Your task to perform on an android device: Go to notification settings Image 0: 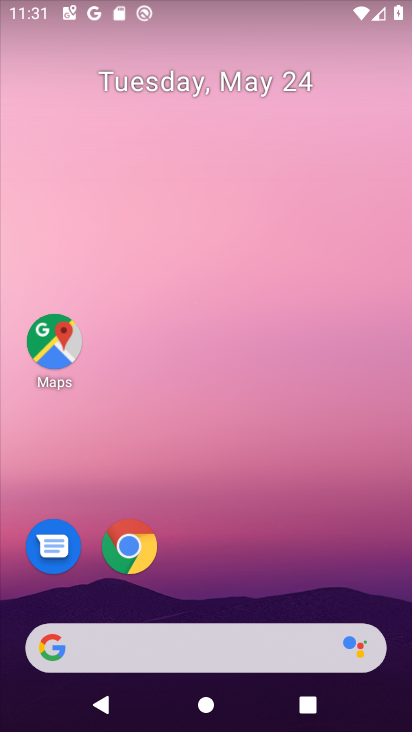
Step 0: drag from (195, 604) to (272, 214)
Your task to perform on an android device: Go to notification settings Image 1: 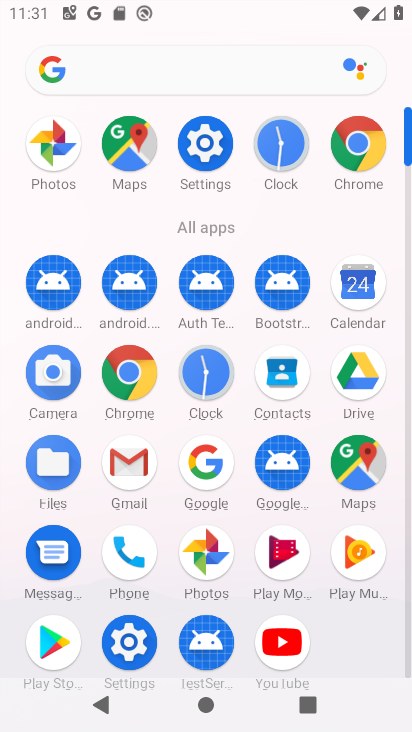
Step 1: click (210, 163)
Your task to perform on an android device: Go to notification settings Image 2: 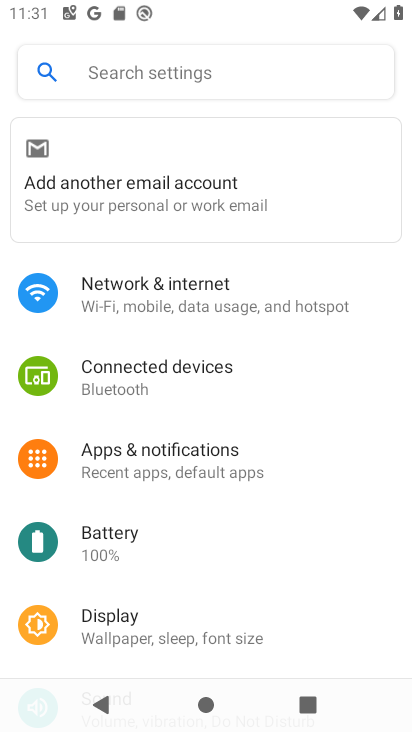
Step 2: click (185, 478)
Your task to perform on an android device: Go to notification settings Image 3: 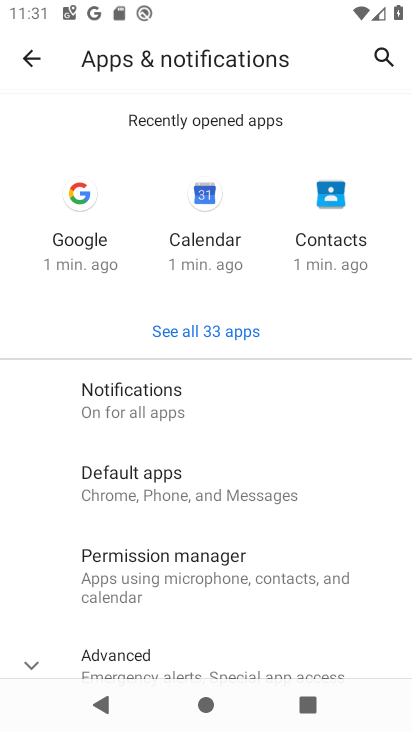
Step 3: click (152, 410)
Your task to perform on an android device: Go to notification settings Image 4: 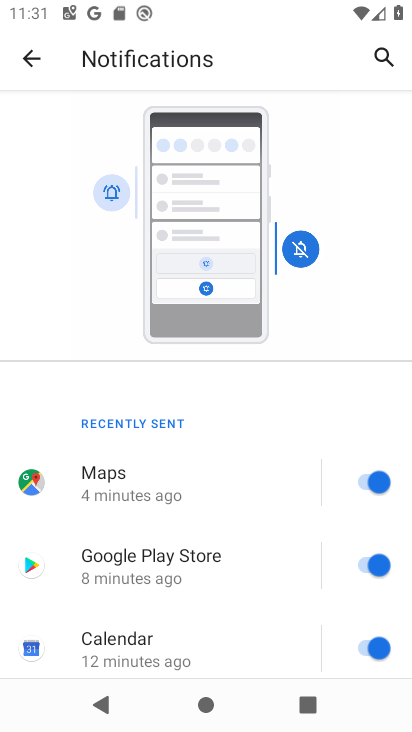
Step 4: task complete